Your task to perform on an android device: When is my next appointment? Image 0: 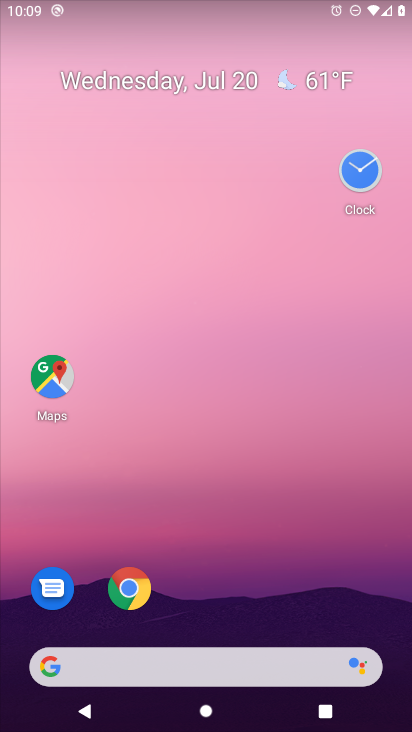
Step 0: drag from (22, 714) to (168, 32)
Your task to perform on an android device: When is my next appointment? Image 1: 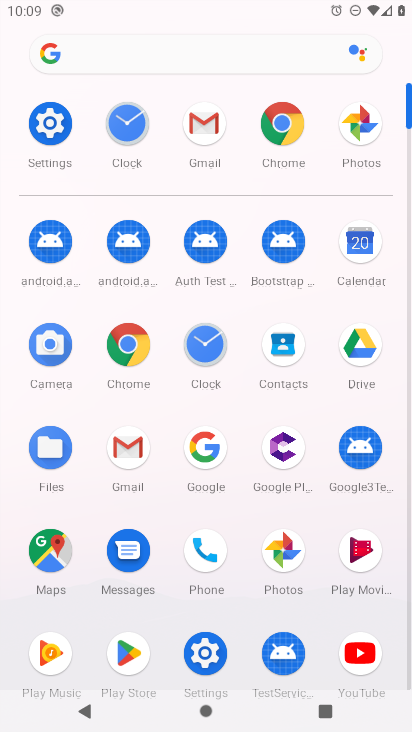
Step 1: click (350, 249)
Your task to perform on an android device: When is my next appointment? Image 2: 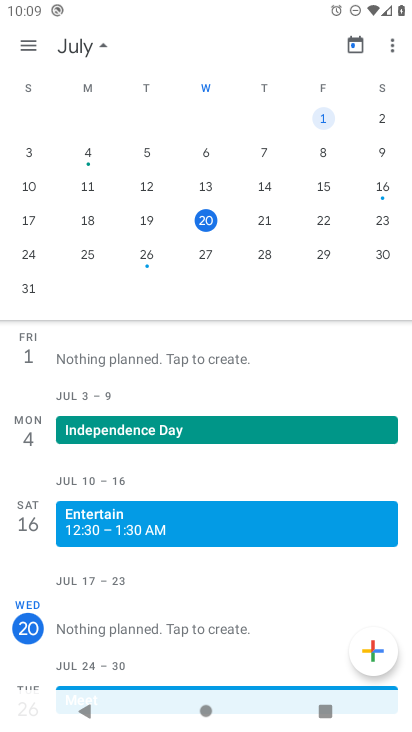
Step 2: task complete